Your task to perform on an android device: Do I have any events today? Image 0: 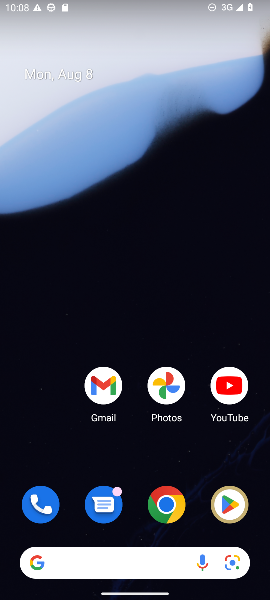
Step 0: drag from (126, 494) to (40, 4)
Your task to perform on an android device: Do I have any events today? Image 1: 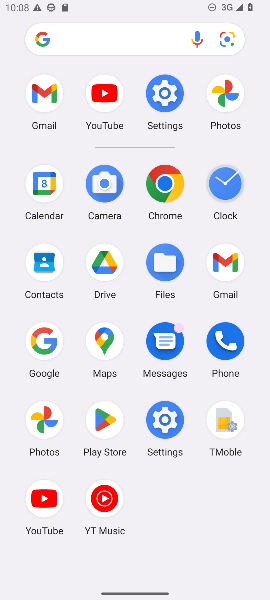
Step 1: click (44, 188)
Your task to perform on an android device: Do I have any events today? Image 2: 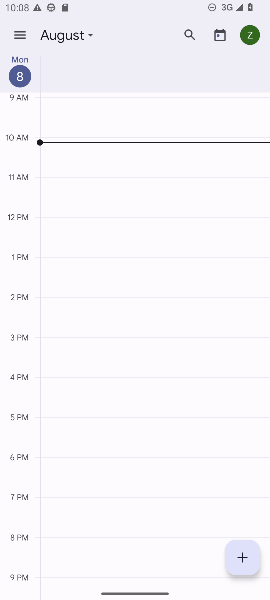
Step 2: click (12, 28)
Your task to perform on an android device: Do I have any events today? Image 3: 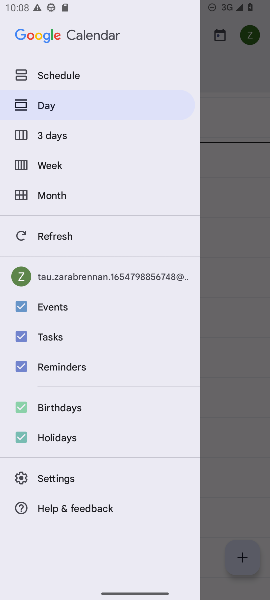
Step 3: click (44, 340)
Your task to perform on an android device: Do I have any events today? Image 4: 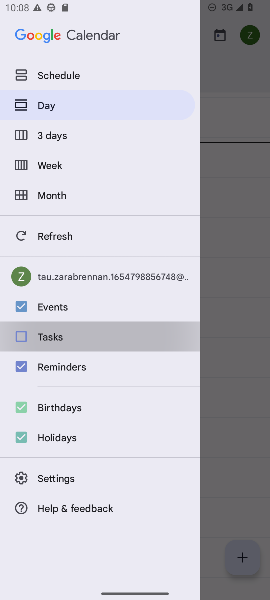
Step 4: click (51, 361)
Your task to perform on an android device: Do I have any events today? Image 5: 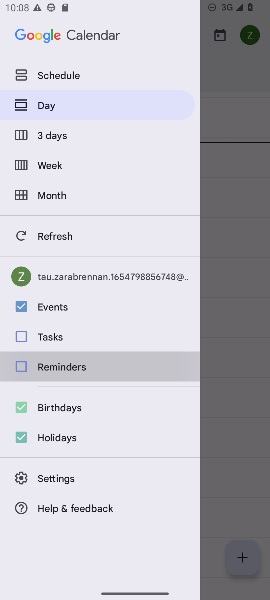
Step 5: click (51, 416)
Your task to perform on an android device: Do I have any events today? Image 6: 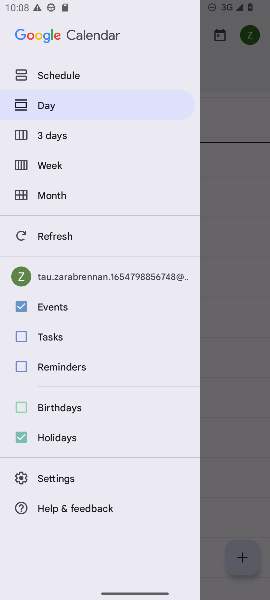
Step 6: click (47, 438)
Your task to perform on an android device: Do I have any events today? Image 7: 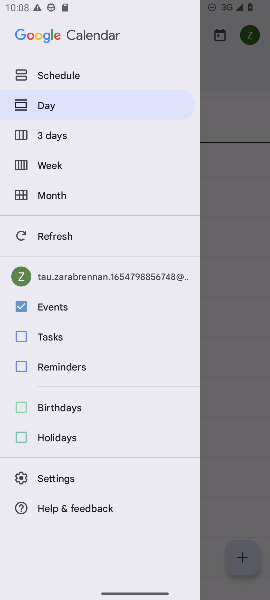
Step 7: click (51, 101)
Your task to perform on an android device: Do I have any events today? Image 8: 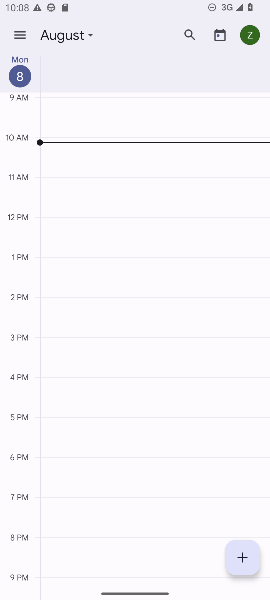
Step 8: task complete